Your task to perform on an android device: Open privacy settings Image 0: 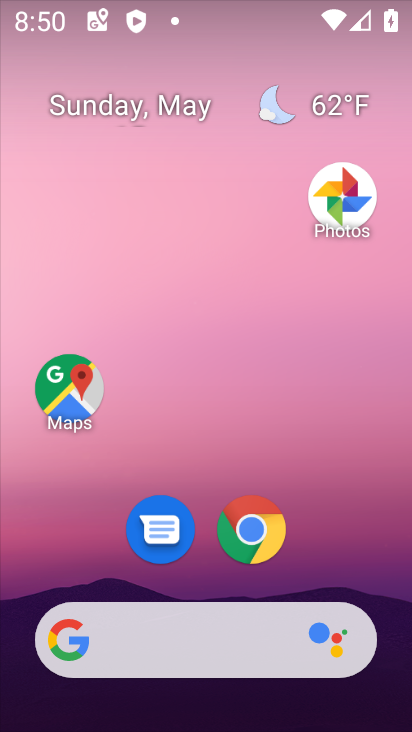
Step 0: drag from (340, 545) to (350, 64)
Your task to perform on an android device: Open privacy settings Image 1: 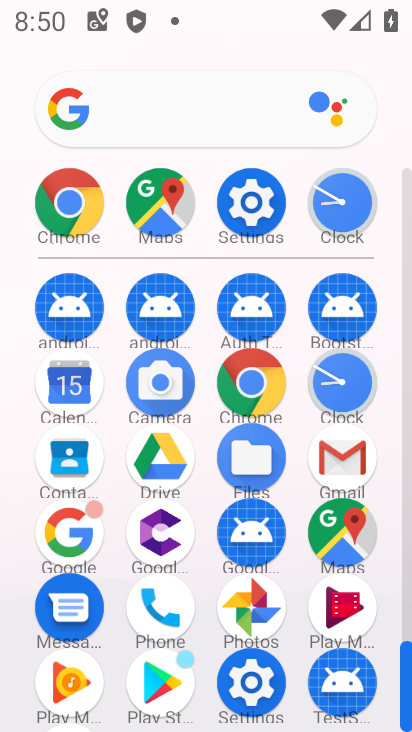
Step 1: click (248, 703)
Your task to perform on an android device: Open privacy settings Image 2: 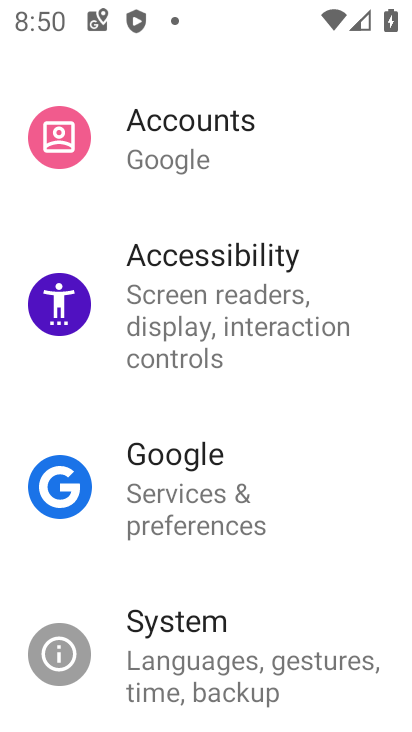
Step 2: drag from (314, 684) to (329, 331)
Your task to perform on an android device: Open privacy settings Image 3: 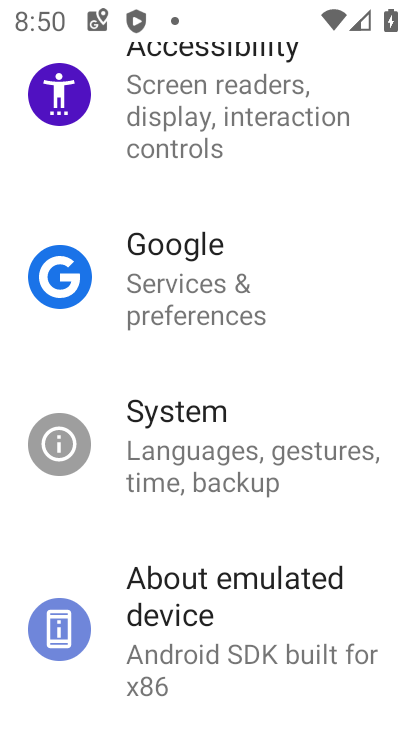
Step 3: click (322, 310)
Your task to perform on an android device: Open privacy settings Image 4: 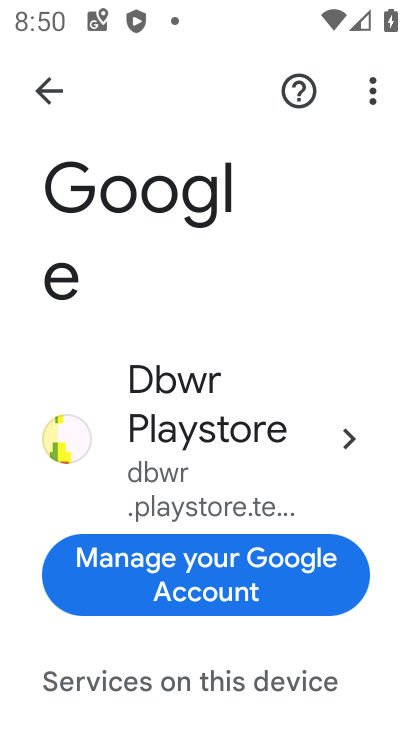
Step 4: click (54, 104)
Your task to perform on an android device: Open privacy settings Image 5: 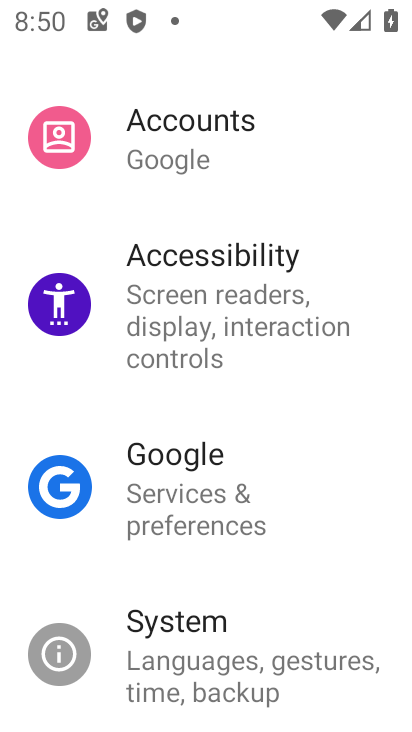
Step 5: drag from (312, 266) to (276, 677)
Your task to perform on an android device: Open privacy settings Image 6: 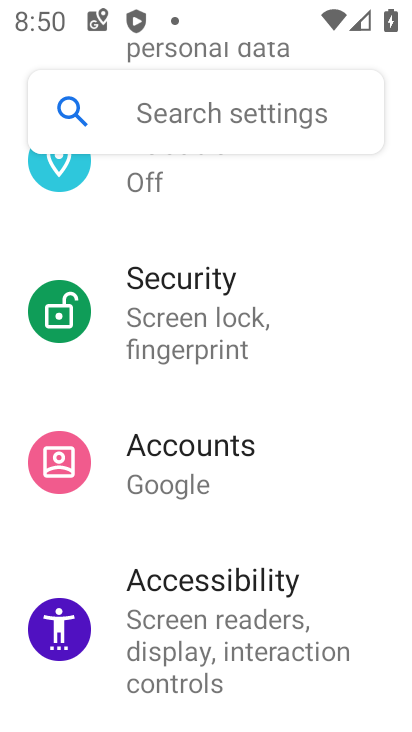
Step 6: drag from (337, 254) to (319, 674)
Your task to perform on an android device: Open privacy settings Image 7: 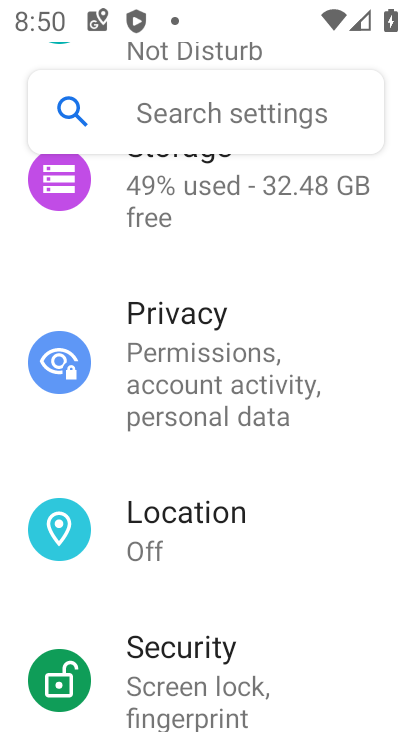
Step 7: click (207, 359)
Your task to perform on an android device: Open privacy settings Image 8: 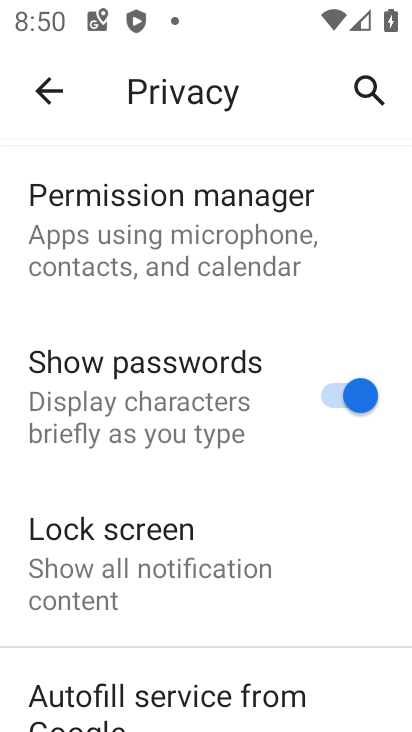
Step 8: task complete